Your task to perform on an android device: Go to Google Image 0: 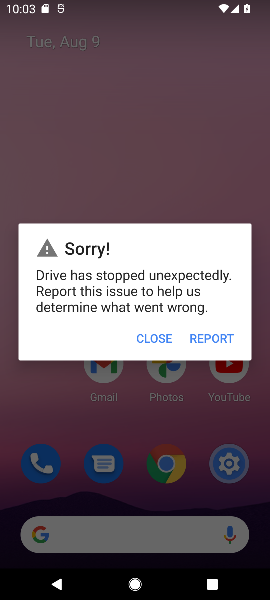
Step 0: click (165, 330)
Your task to perform on an android device: Go to Google Image 1: 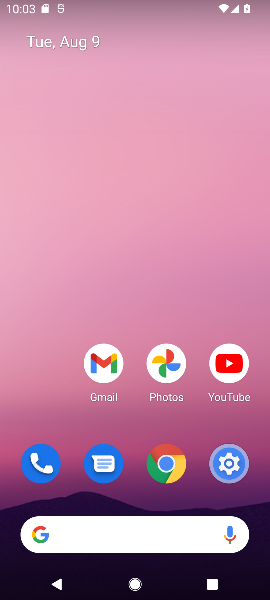
Step 1: click (155, 524)
Your task to perform on an android device: Go to Google Image 2: 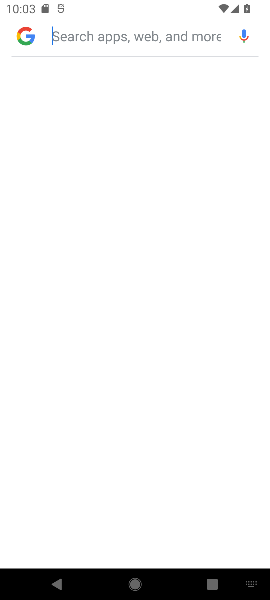
Step 2: task complete